Your task to perform on an android device: open a new tab in the chrome app Image 0: 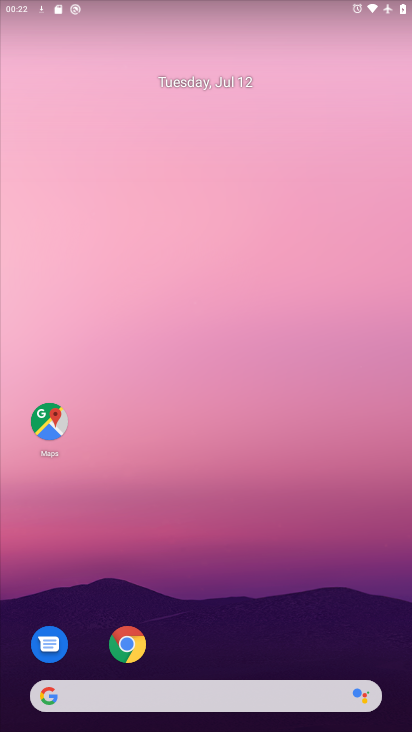
Step 0: drag from (219, 643) to (254, 208)
Your task to perform on an android device: open a new tab in the chrome app Image 1: 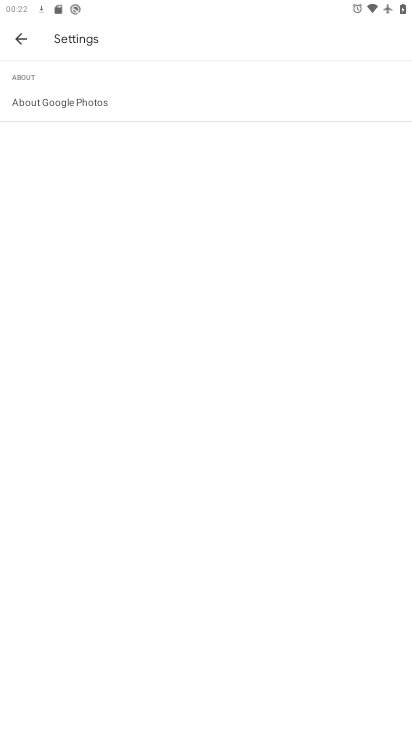
Step 1: press home button
Your task to perform on an android device: open a new tab in the chrome app Image 2: 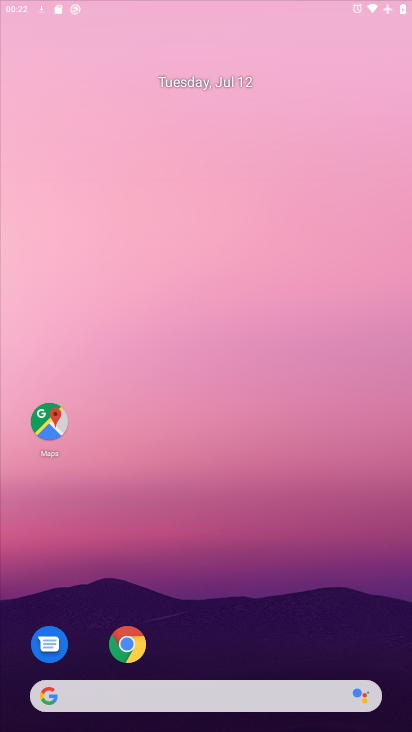
Step 2: drag from (216, 683) to (237, 278)
Your task to perform on an android device: open a new tab in the chrome app Image 3: 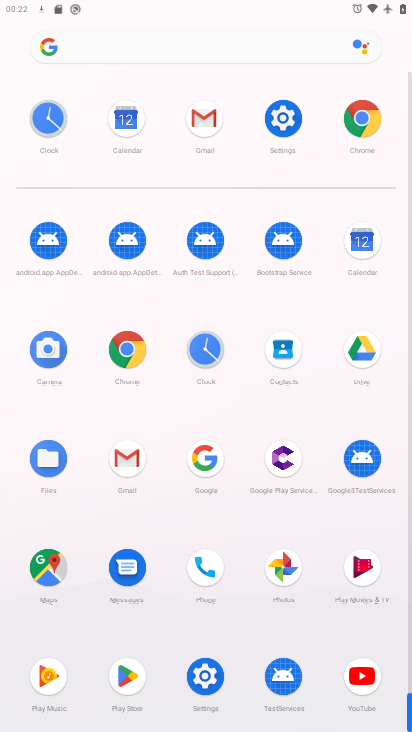
Step 3: click (376, 121)
Your task to perform on an android device: open a new tab in the chrome app Image 4: 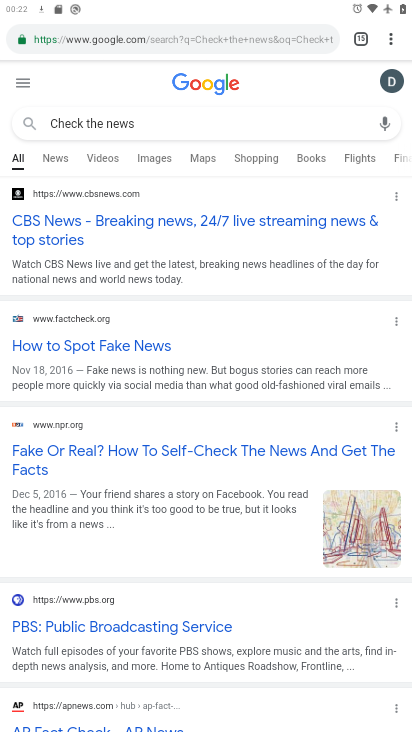
Step 4: click (399, 38)
Your task to perform on an android device: open a new tab in the chrome app Image 5: 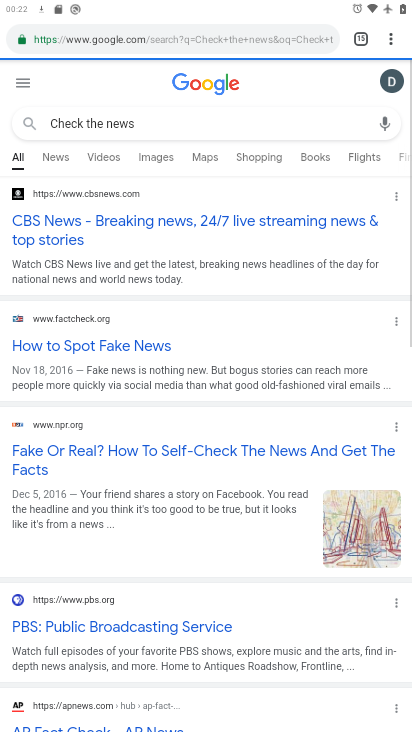
Step 5: click (399, 38)
Your task to perform on an android device: open a new tab in the chrome app Image 6: 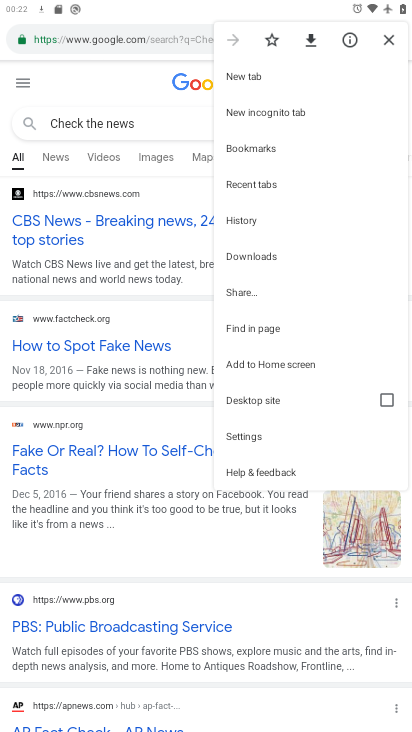
Step 6: click (273, 88)
Your task to perform on an android device: open a new tab in the chrome app Image 7: 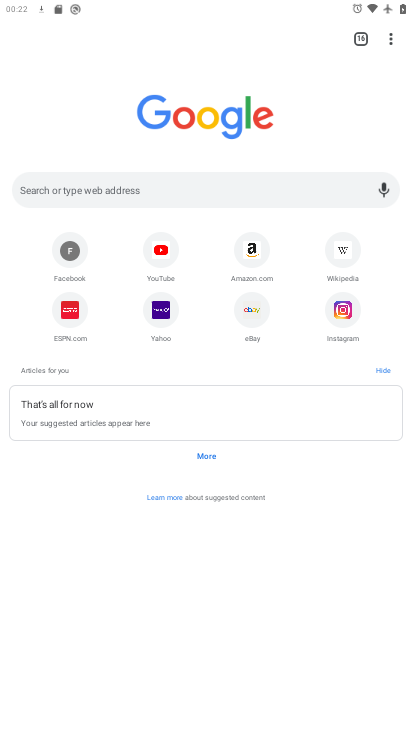
Step 7: task complete